Your task to perform on an android device: turn off picture-in-picture Image 0: 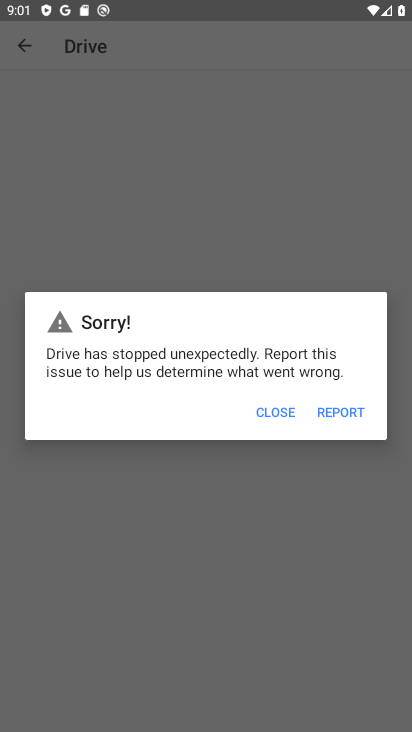
Step 0: press home button
Your task to perform on an android device: turn off picture-in-picture Image 1: 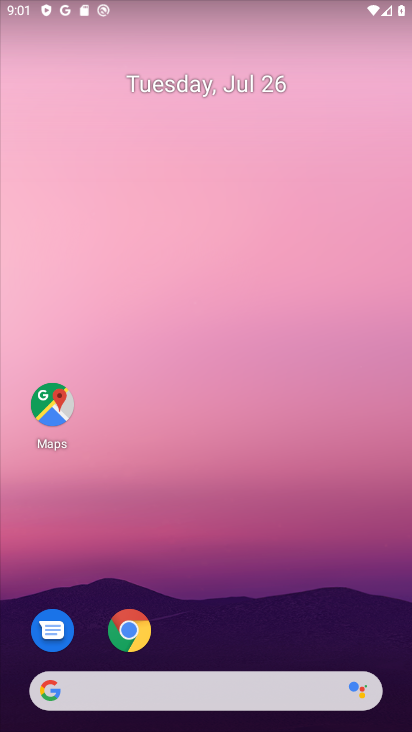
Step 1: click (124, 640)
Your task to perform on an android device: turn off picture-in-picture Image 2: 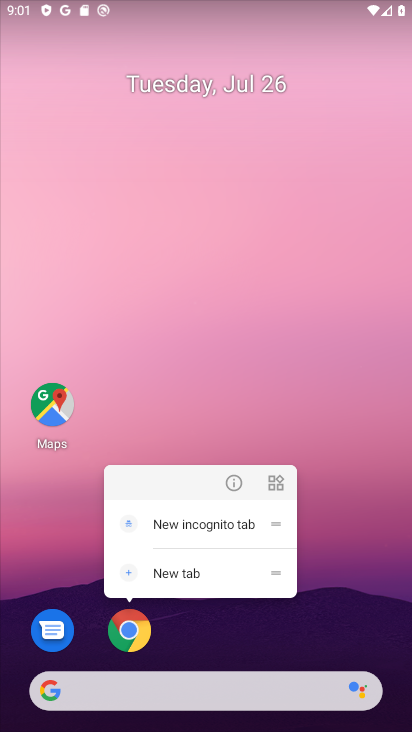
Step 2: click (228, 489)
Your task to perform on an android device: turn off picture-in-picture Image 3: 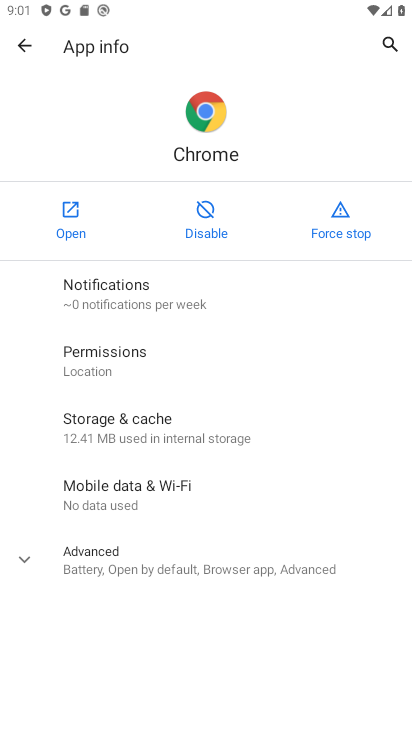
Step 3: click (180, 559)
Your task to perform on an android device: turn off picture-in-picture Image 4: 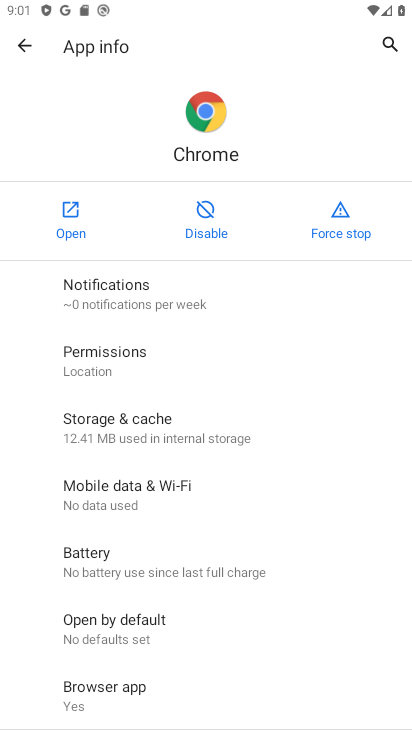
Step 4: drag from (241, 620) to (123, 174)
Your task to perform on an android device: turn off picture-in-picture Image 5: 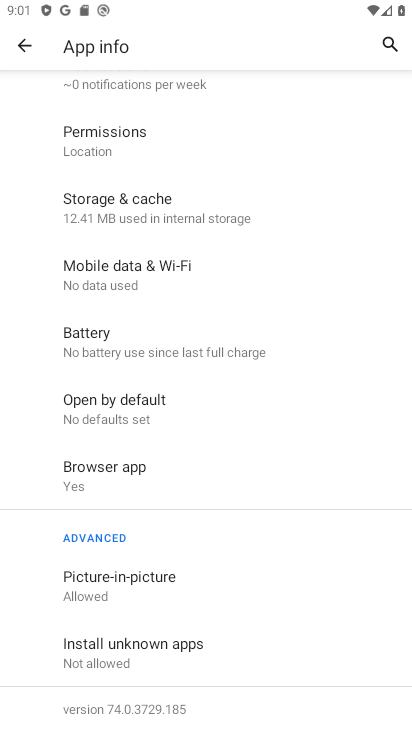
Step 5: click (177, 596)
Your task to perform on an android device: turn off picture-in-picture Image 6: 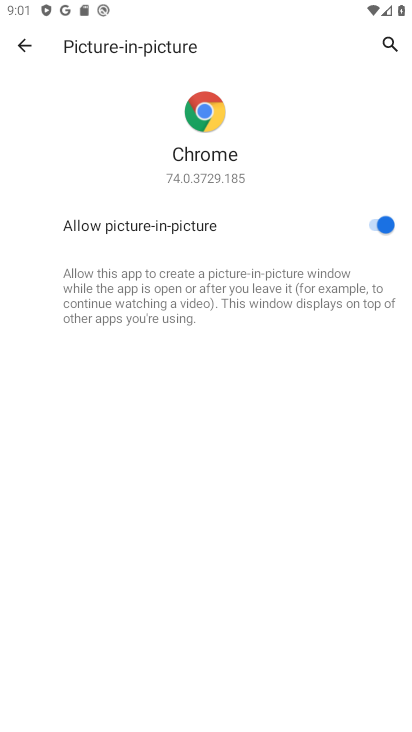
Step 6: click (383, 235)
Your task to perform on an android device: turn off picture-in-picture Image 7: 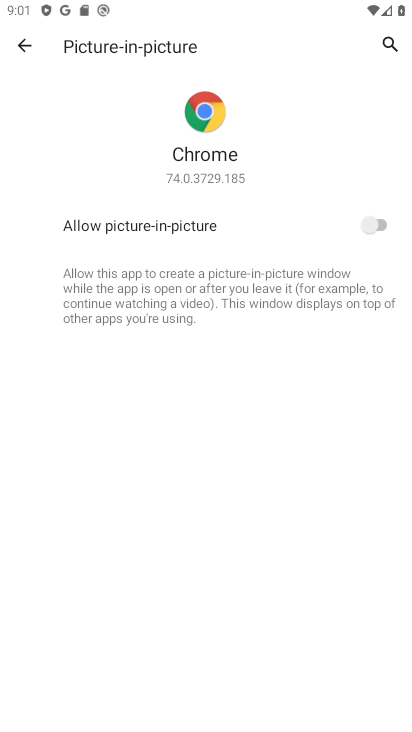
Step 7: task complete